Your task to perform on an android device: Empty the shopping cart on amazon.com. Add energizer triple a to the cart on amazon.com, then select checkout. Image 0: 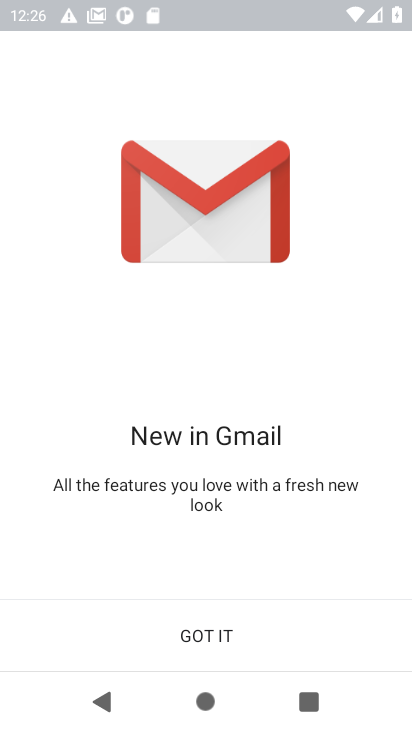
Step 0: press home button
Your task to perform on an android device: Empty the shopping cart on amazon.com. Add energizer triple a to the cart on amazon.com, then select checkout. Image 1: 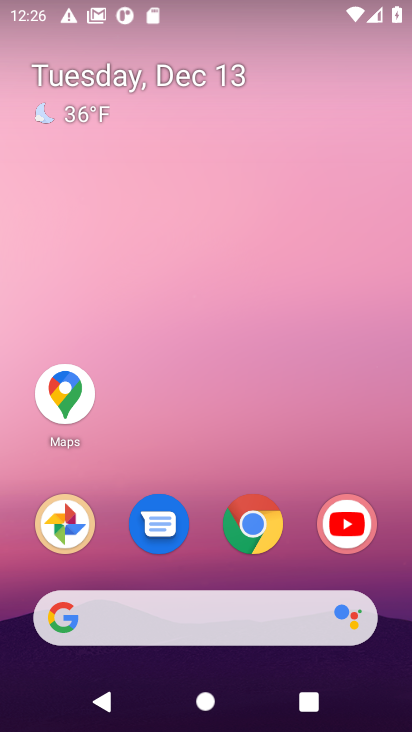
Step 1: click (248, 534)
Your task to perform on an android device: Empty the shopping cart on amazon.com. Add energizer triple a to the cart on amazon.com, then select checkout. Image 2: 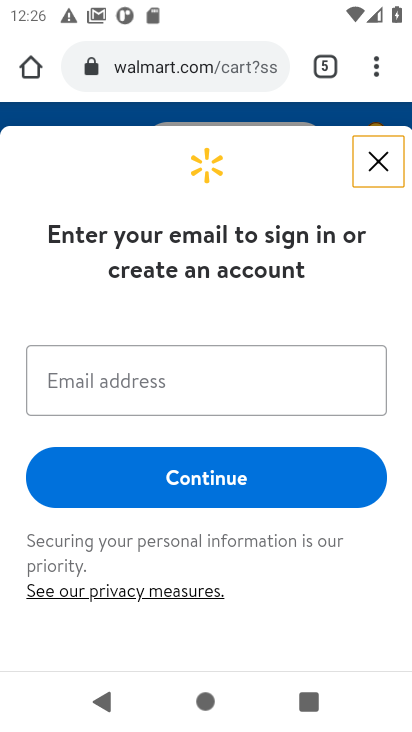
Step 2: click (156, 67)
Your task to perform on an android device: Empty the shopping cart on amazon.com. Add energizer triple a to the cart on amazon.com, then select checkout. Image 3: 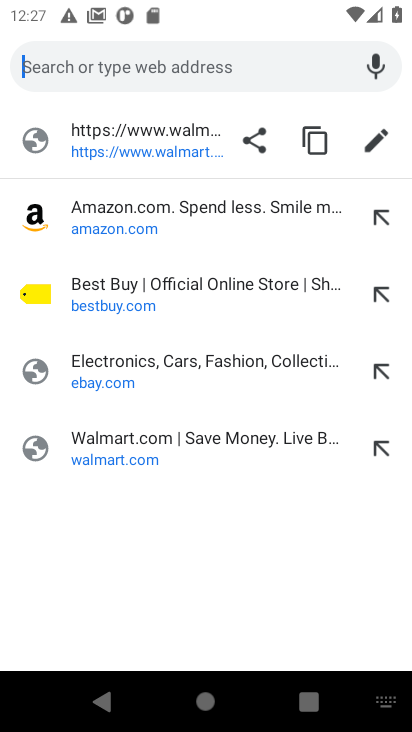
Step 3: click (108, 222)
Your task to perform on an android device: Empty the shopping cart on amazon.com. Add energizer triple a to the cart on amazon.com, then select checkout. Image 4: 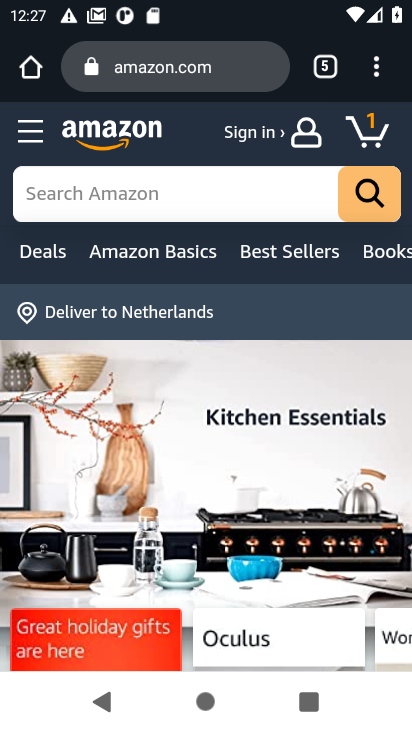
Step 4: click (371, 137)
Your task to perform on an android device: Empty the shopping cart on amazon.com. Add energizer triple a to the cart on amazon.com, then select checkout. Image 5: 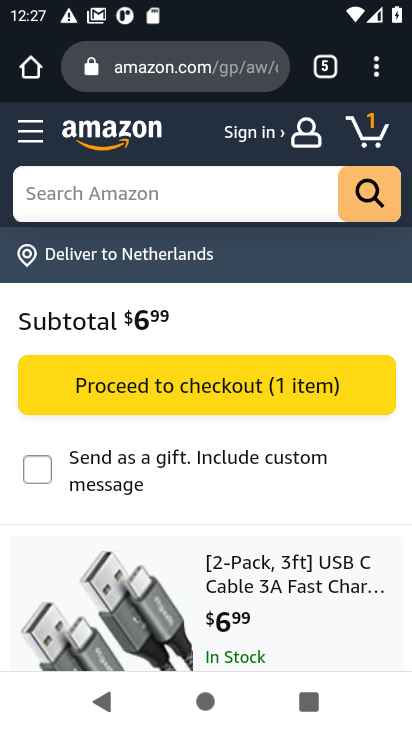
Step 5: drag from (196, 490) to (214, 220)
Your task to perform on an android device: Empty the shopping cart on amazon.com. Add energizer triple a to the cart on amazon.com, then select checkout. Image 6: 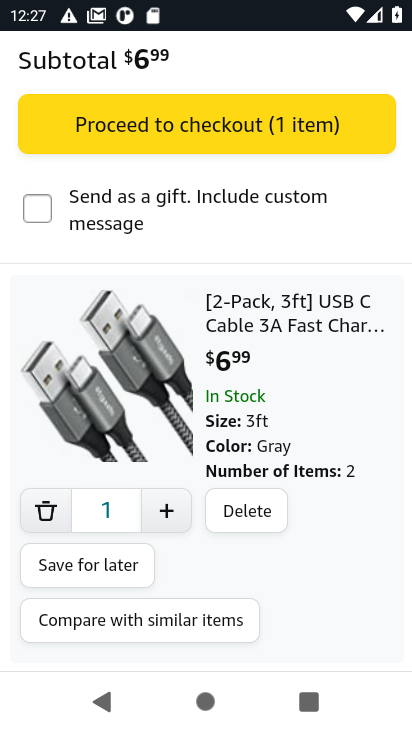
Step 6: click (252, 509)
Your task to perform on an android device: Empty the shopping cart on amazon.com. Add energizer triple a to the cart on amazon.com, then select checkout. Image 7: 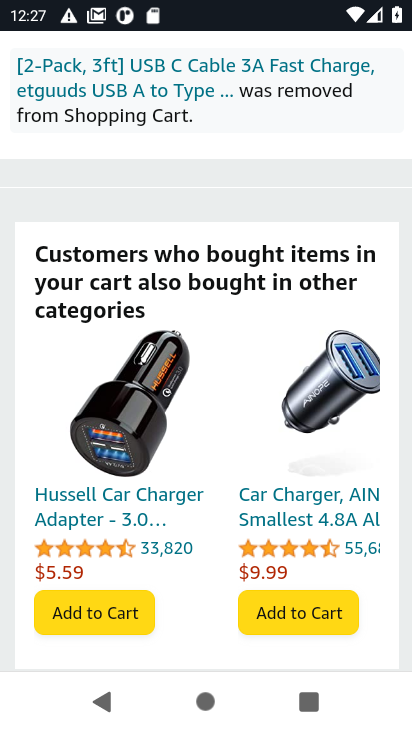
Step 7: drag from (234, 231) to (205, 515)
Your task to perform on an android device: Empty the shopping cart on amazon.com. Add energizer triple a to the cart on amazon.com, then select checkout. Image 8: 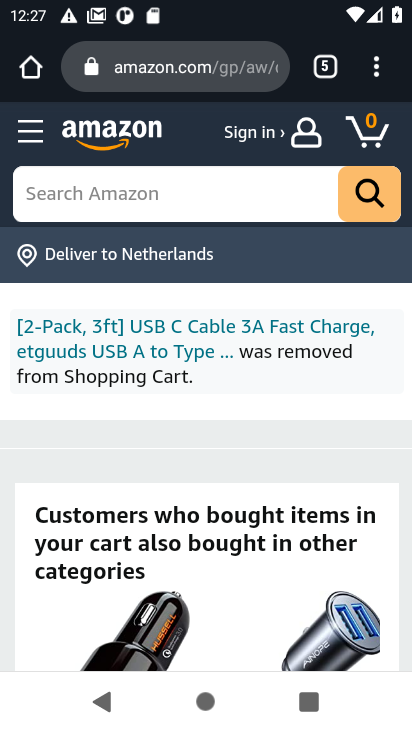
Step 8: click (123, 193)
Your task to perform on an android device: Empty the shopping cart on amazon.com. Add energizer triple a to the cart on amazon.com, then select checkout. Image 9: 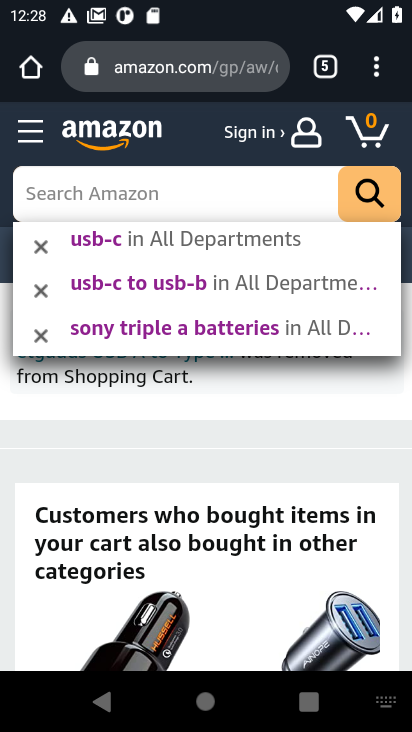
Step 9: type "energizer triple a"
Your task to perform on an android device: Empty the shopping cart on amazon.com. Add energizer triple a to the cart on amazon.com, then select checkout. Image 10: 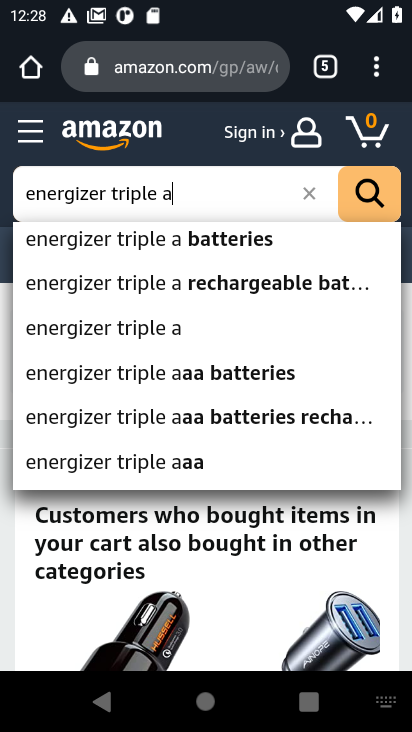
Step 10: click (142, 244)
Your task to perform on an android device: Empty the shopping cart on amazon.com. Add energizer triple a to the cart on amazon.com, then select checkout. Image 11: 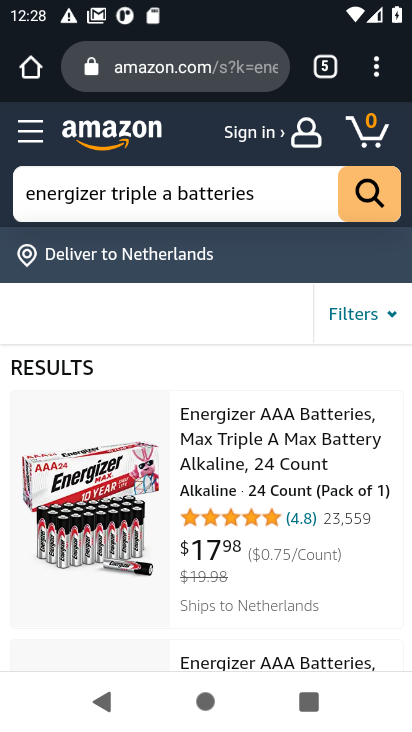
Step 11: click (262, 472)
Your task to perform on an android device: Empty the shopping cart on amazon.com. Add energizer triple a to the cart on amazon.com, then select checkout. Image 12: 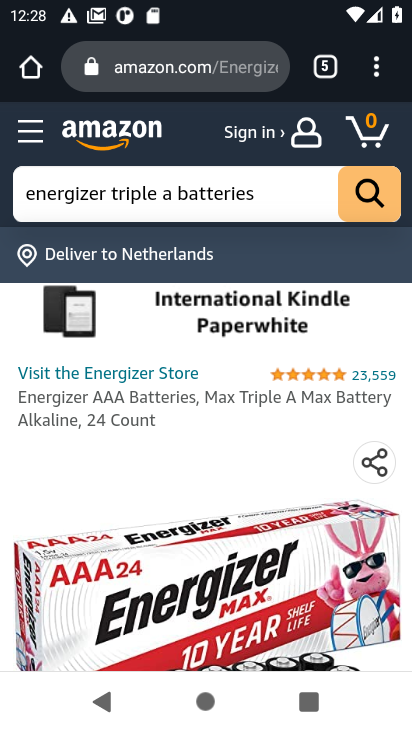
Step 12: drag from (141, 531) to (152, 176)
Your task to perform on an android device: Empty the shopping cart on amazon.com. Add energizer triple a to the cart on amazon.com, then select checkout. Image 13: 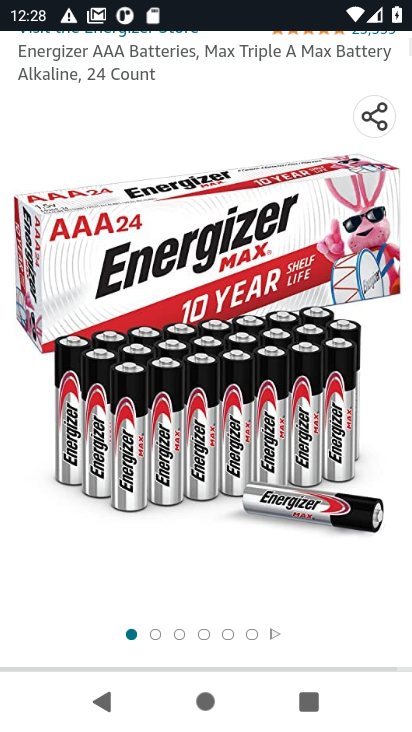
Step 13: drag from (193, 449) to (192, 188)
Your task to perform on an android device: Empty the shopping cart on amazon.com. Add energizer triple a to the cart on amazon.com, then select checkout. Image 14: 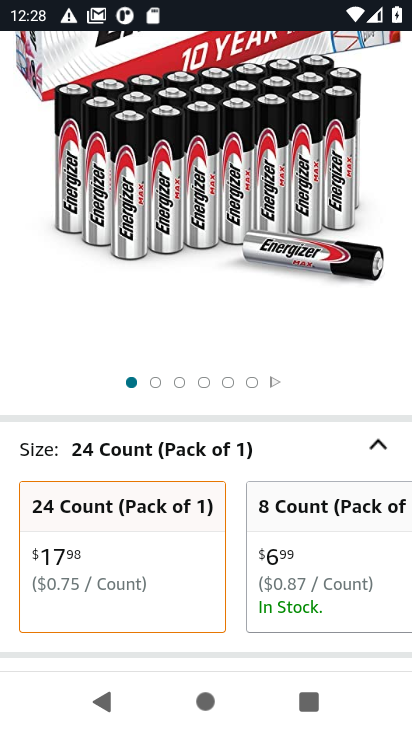
Step 14: drag from (187, 461) to (195, 171)
Your task to perform on an android device: Empty the shopping cart on amazon.com. Add energizer triple a to the cart on amazon.com, then select checkout. Image 15: 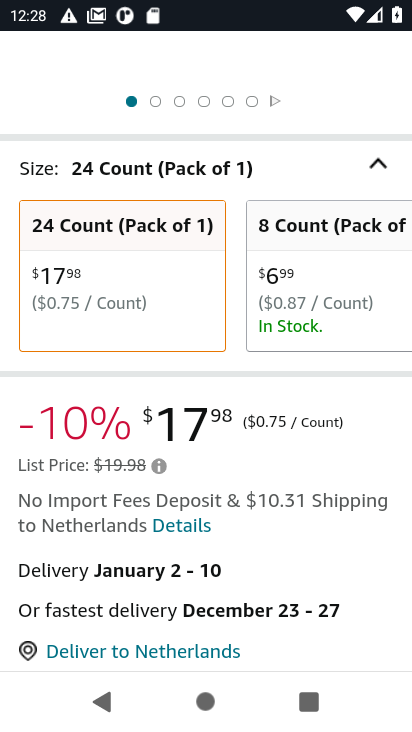
Step 15: drag from (194, 433) to (192, 148)
Your task to perform on an android device: Empty the shopping cart on amazon.com. Add energizer triple a to the cart on amazon.com, then select checkout. Image 16: 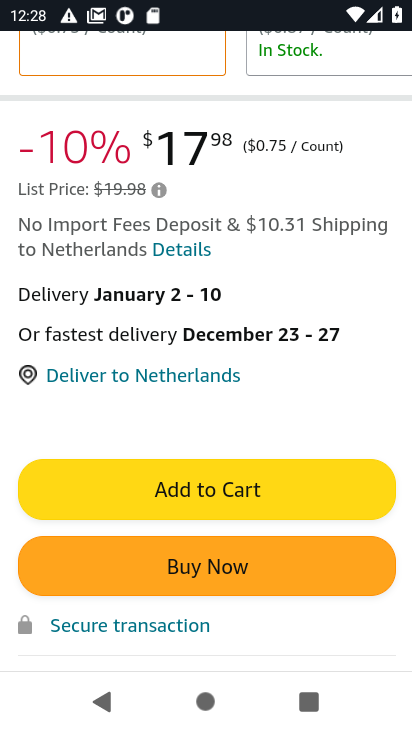
Step 16: click (170, 476)
Your task to perform on an android device: Empty the shopping cart on amazon.com. Add energizer triple a to the cart on amazon.com, then select checkout. Image 17: 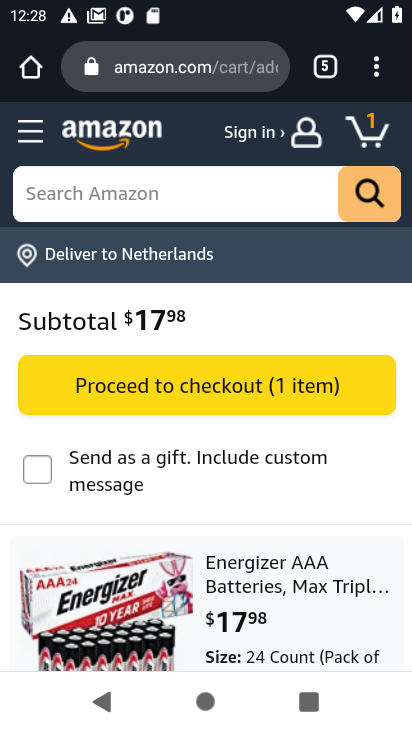
Step 17: click (233, 383)
Your task to perform on an android device: Empty the shopping cart on amazon.com. Add energizer triple a to the cart on amazon.com, then select checkout. Image 18: 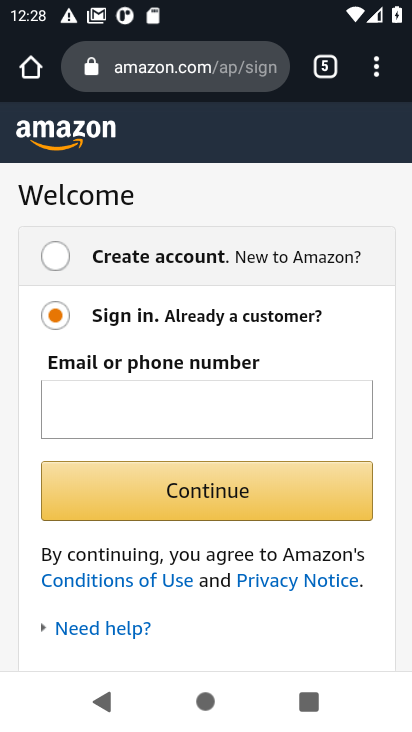
Step 18: task complete